Your task to perform on an android device: change notifications settings Image 0: 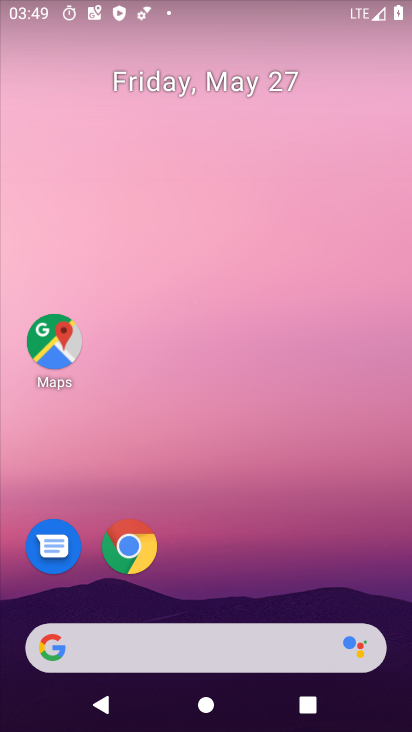
Step 0: press home button
Your task to perform on an android device: change notifications settings Image 1: 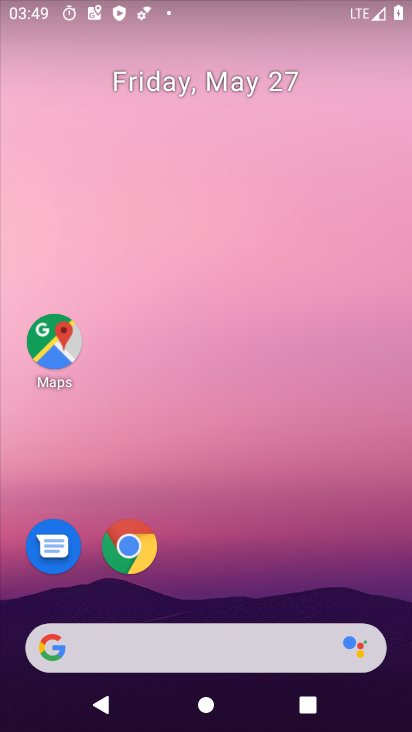
Step 1: drag from (398, 699) to (350, 168)
Your task to perform on an android device: change notifications settings Image 2: 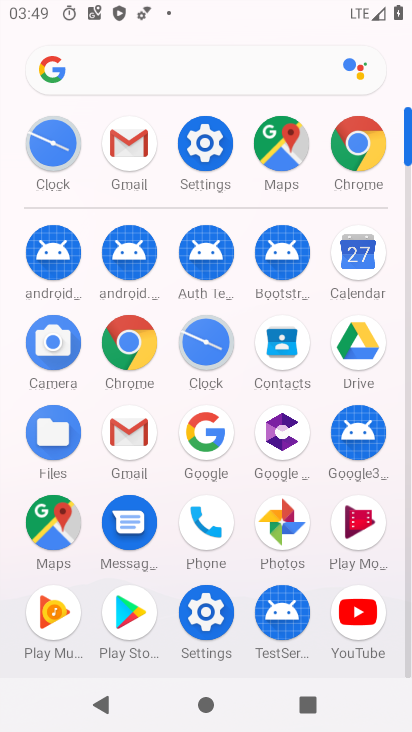
Step 2: click (204, 610)
Your task to perform on an android device: change notifications settings Image 3: 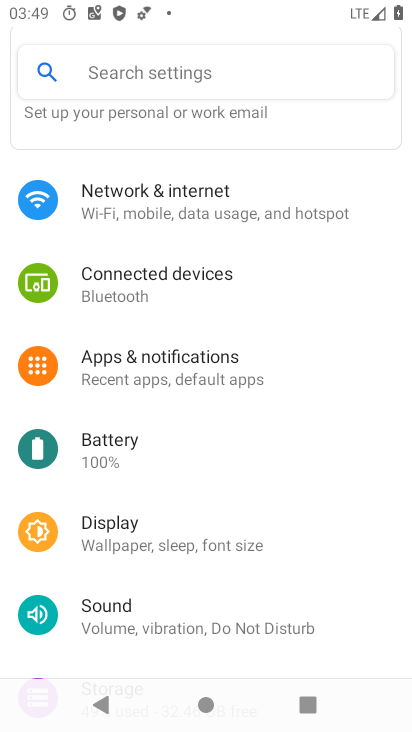
Step 3: click (130, 237)
Your task to perform on an android device: change notifications settings Image 4: 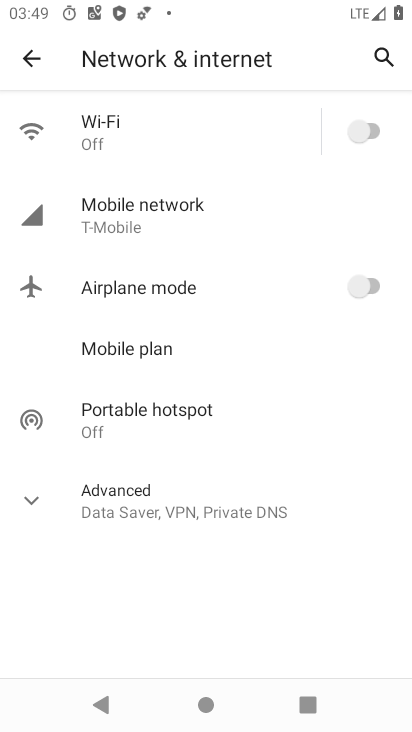
Step 4: click (28, 54)
Your task to perform on an android device: change notifications settings Image 5: 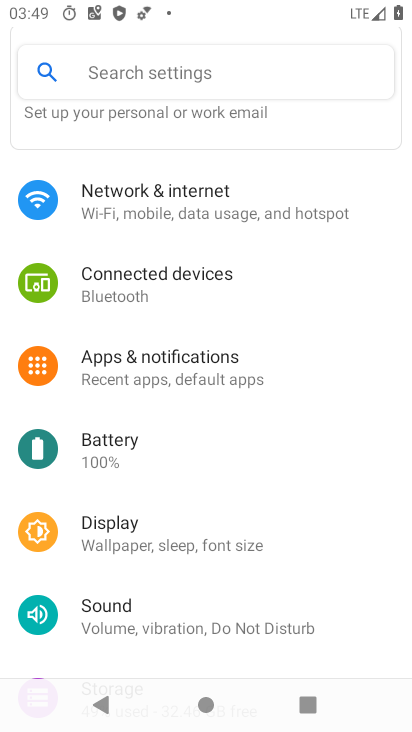
Step 5: click (116, 373)
Your task to perform on an android device: change notifications settings Image 6: 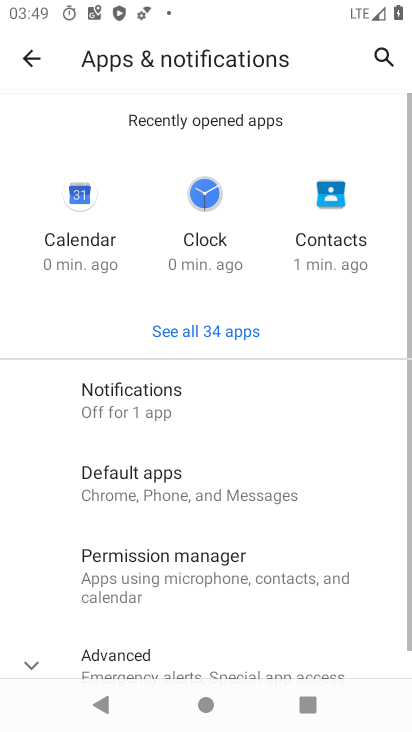
Step 6: click (128, 396)
Your task to perform on an android device: change notifications settings Image 7: 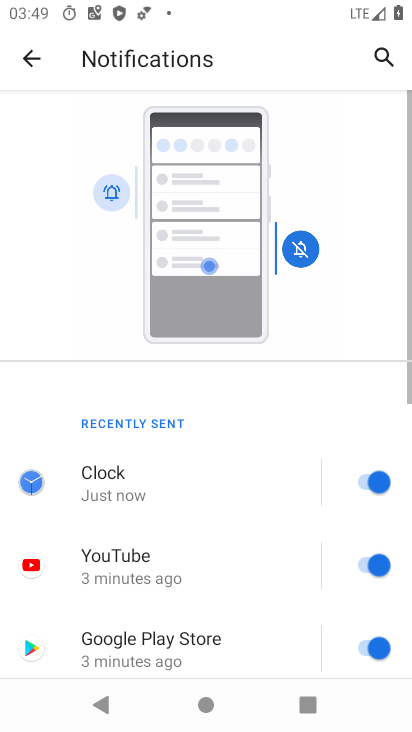
Step 7: task complete